Your task to perform on an android device: turn on translation in the chrome app Image 0: 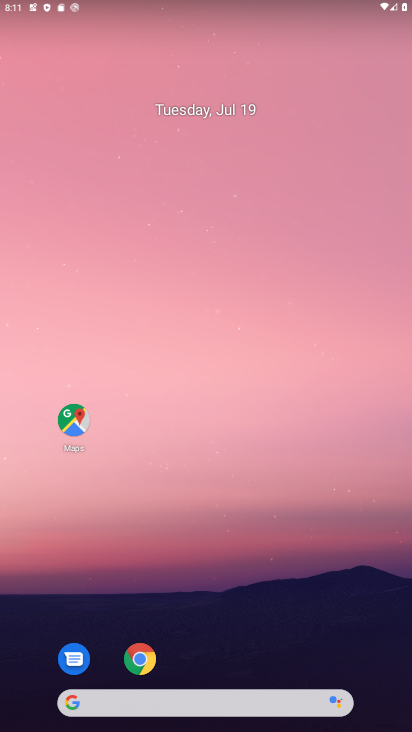
Step 0: click (141, 670)
Your task to perform on an android device: turn on translation in the chrome app Image 1: 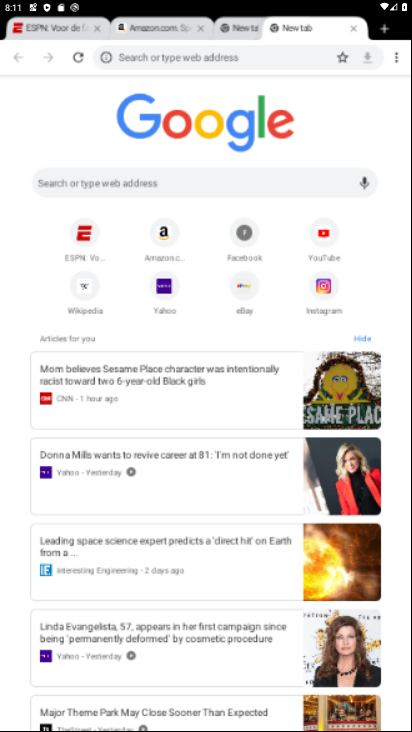
Step 1: click (396, 54)
Your task to perform on an android device: turn on translation in the chrome app Image 2: 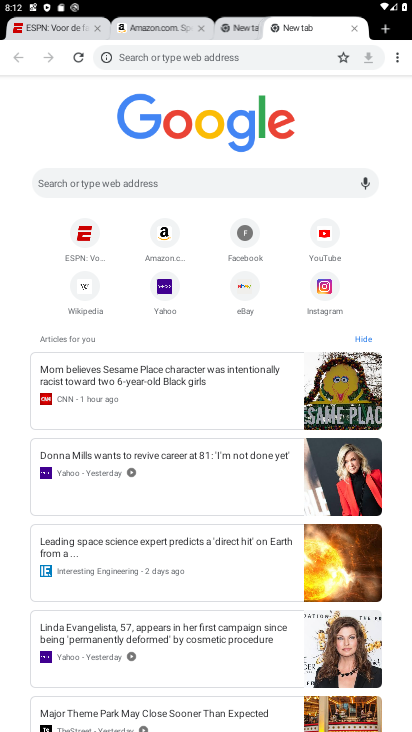
Step 2: click (396, 56)
Your task to perform on an android device: turn on translation in the chrome app Image 3: 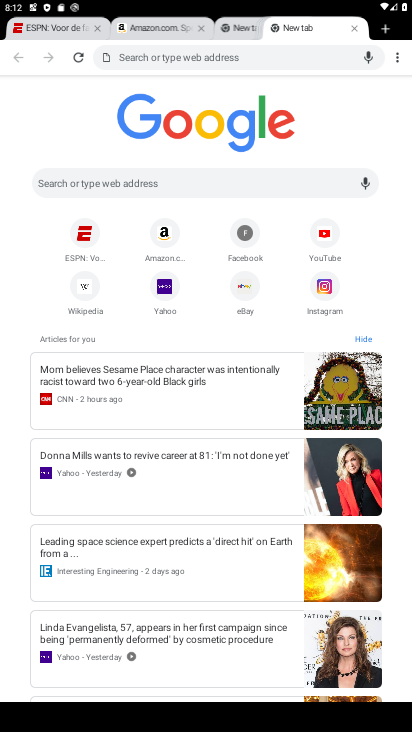
Step 3: click (348, 30)
Your task to perform on an android device: turn on translation in the chrome app Image 4: 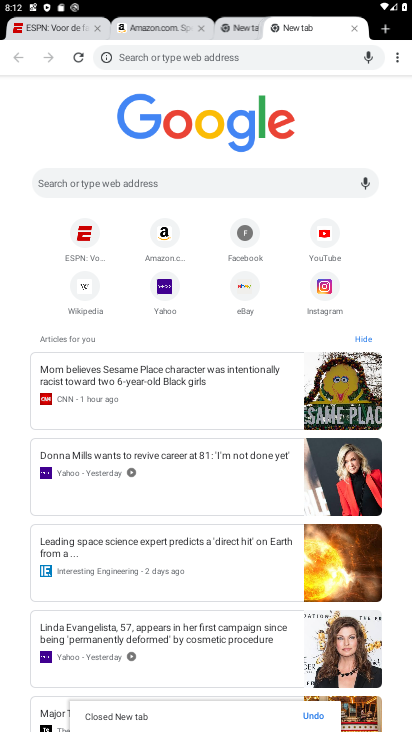
Step 4: click (348, 30)
Your task to perform on an android device: turn on translation in the chrome app Image 5: 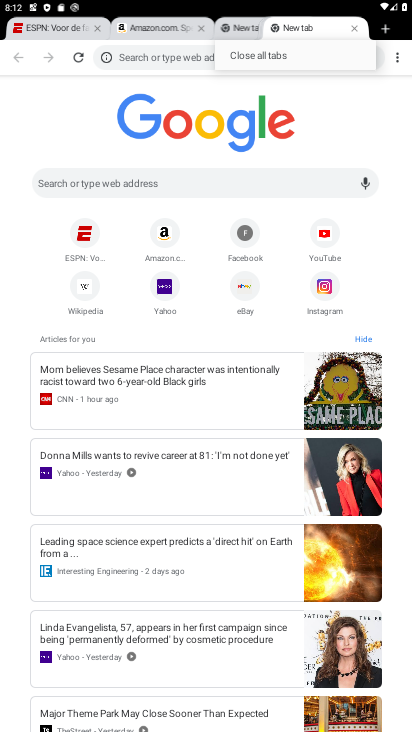
Step 5: click (357, 29)
Your task to perform on an android device: turn on translation in the chrome app Image 6: 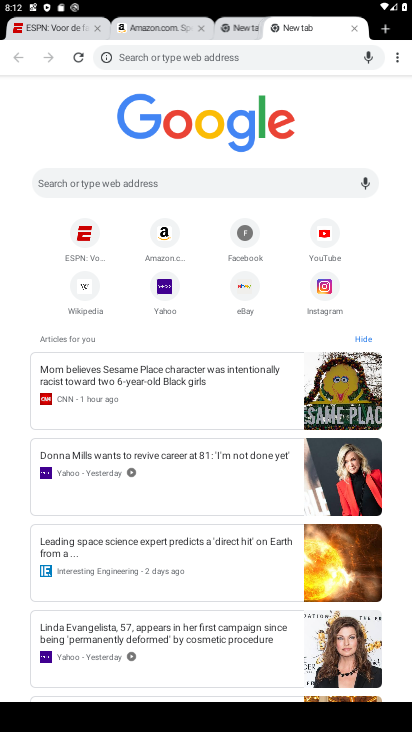
Step 6: click (357, 30)
Your task to perform on an android device: turn on translation in the chrome app Image 7: 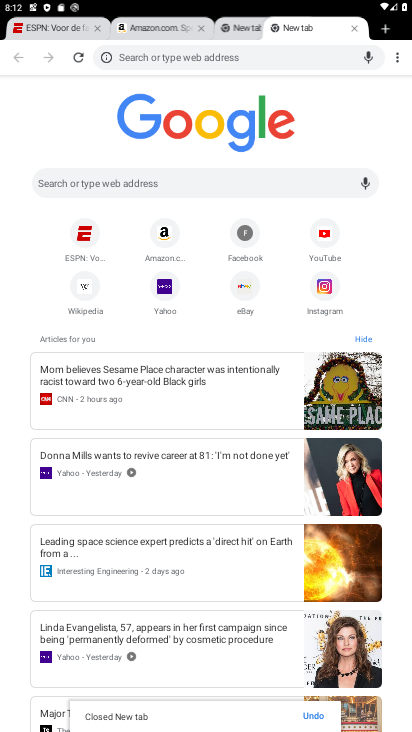
Step 7: click (357, 30)
Your task to perform on an android device: turn on translation in the chrome app Image 8: 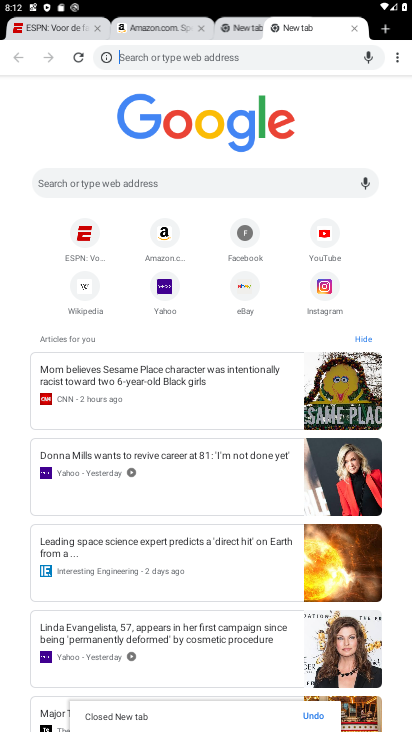
Step 8: click (357, 30)
Your task to perform on an android device: turn on translation in the chrome app Image 9: 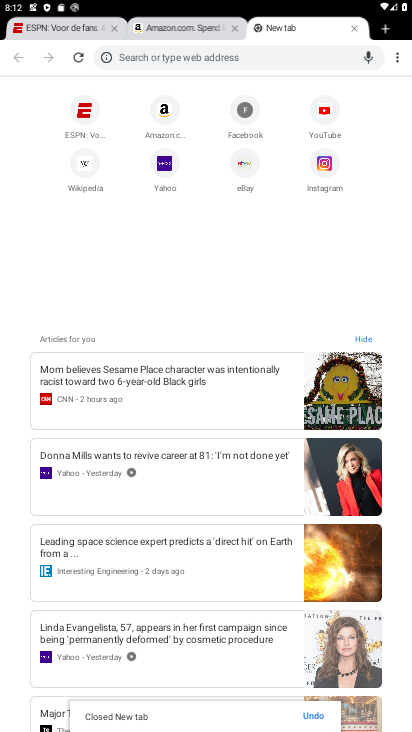
Step 9: click (357, 30)
Your task to perform on an android device: turn on translation in the chrome app Image 10: 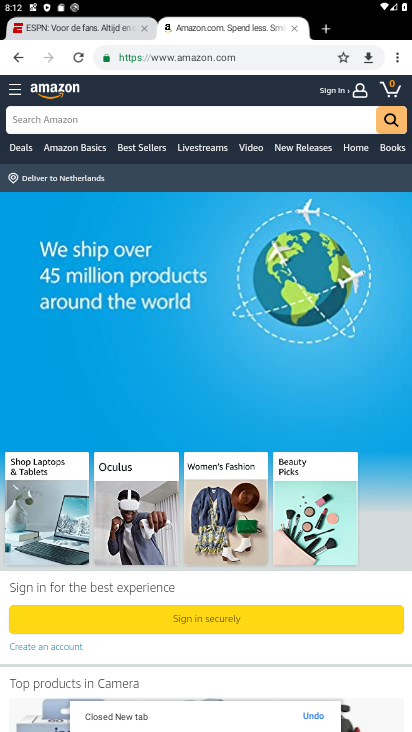
Step 10: click (394, 60)
Your task to perform on an android device: turn on translation in the chrome app Image 11: 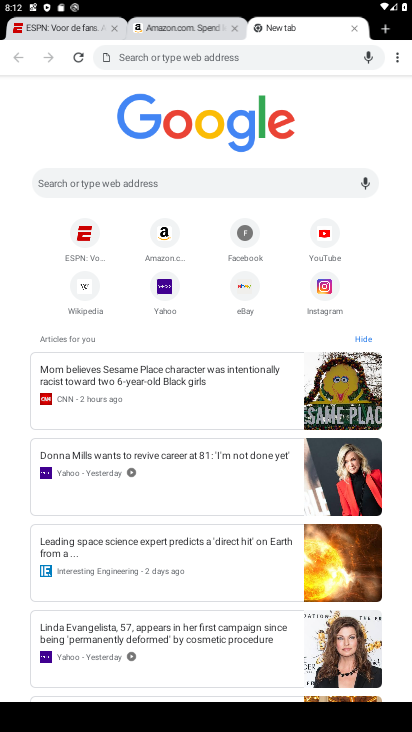
Step 11: click (395, 56)
Your task to perform on an android device: turn on translation in the chrome app Image 12: 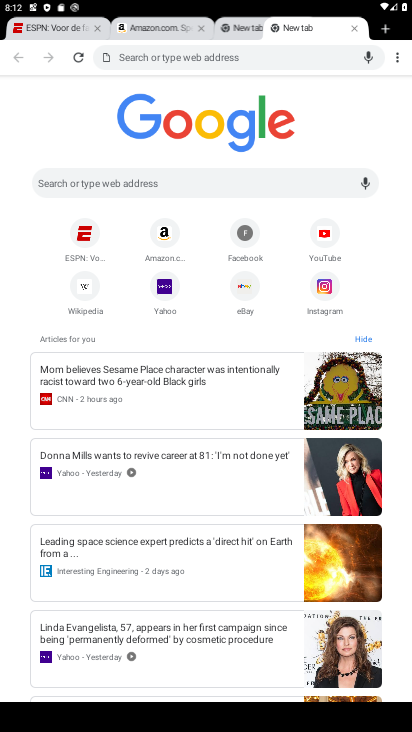
Step 12: click (399, 61)
Your task to perform on an android device: turn on translation in the chrome app Image 13: 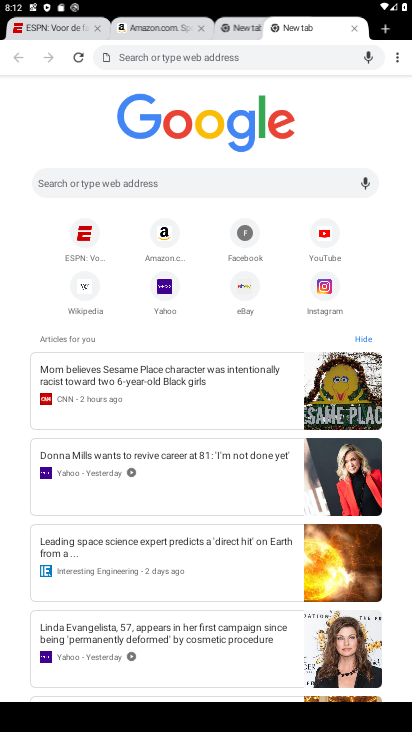
Step 13: click (399, 50)
Your task to perform on an android device: turn on translation in the chrome app Image 14: 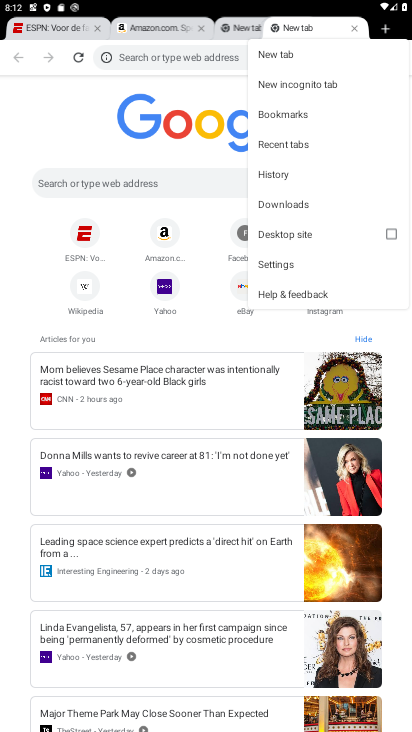
Step 14: click (290, 260)
Your task to perform on an android device: turn on translation in the chrome app Image 15: 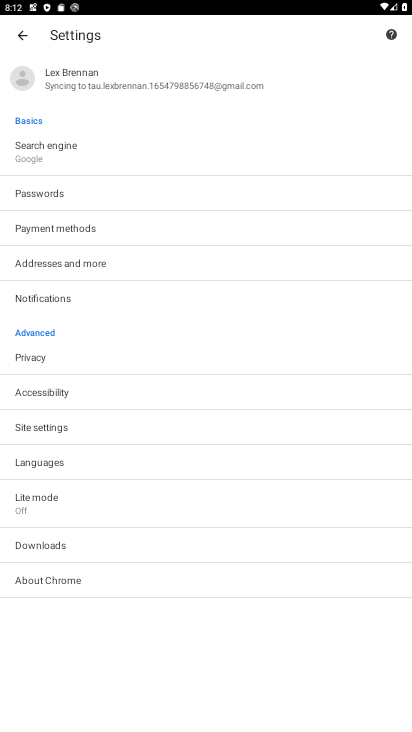
Step 15: click (17, 464)
Your task to perform on an android device: turn on translation in the chrome app Image 16: 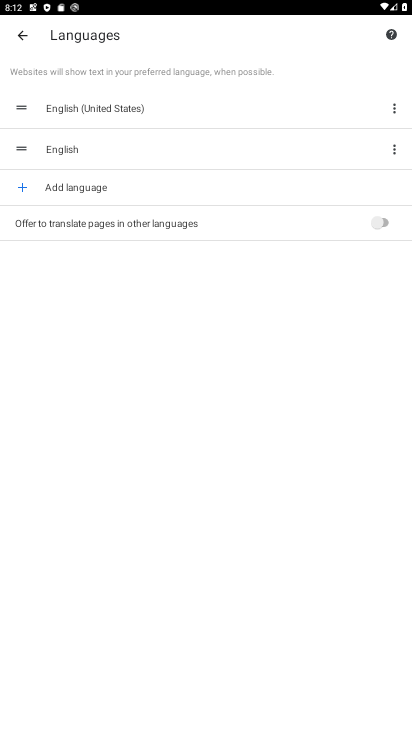
Step 16: click (388, 227)
Your task to perform on an android device: turn on translation in the chrome app Image 17: 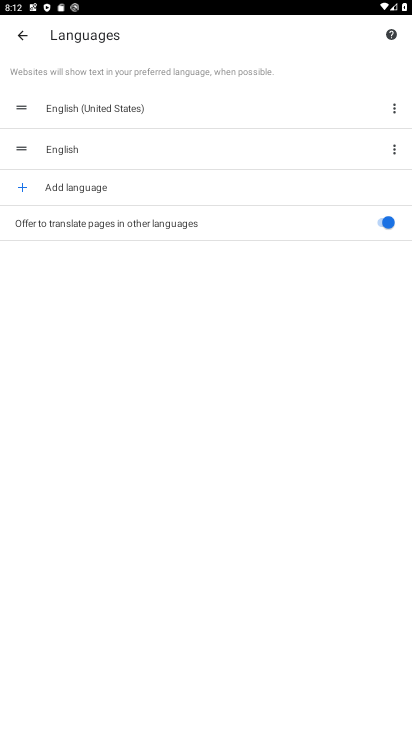
Step 17: task complete